Your task to perform on an android device: Open ESPN.com Image 0: 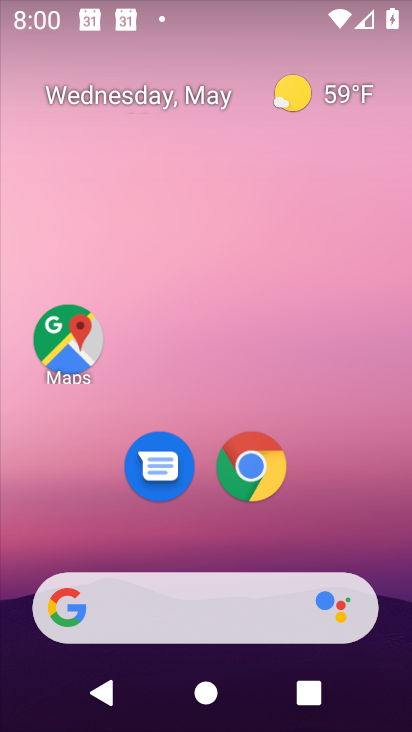
Step 0: drag from (330, 539) to (303, 228)
Your task to perform on an android device: Open ESPN.com Image 1: 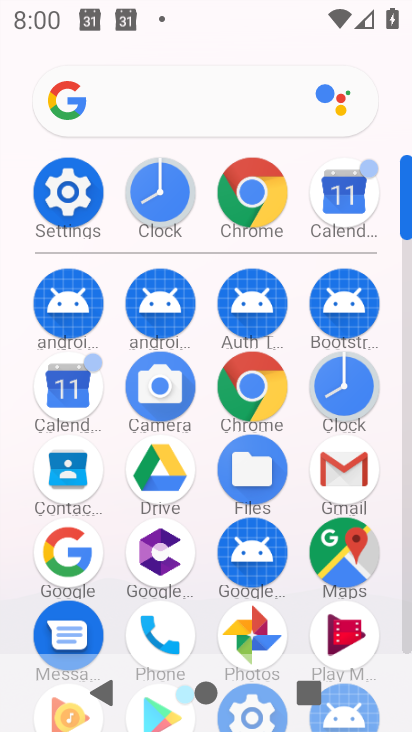
Step 1: click (241, 191)
Your task to perform on an android device: Open ESPN.com Image 2: 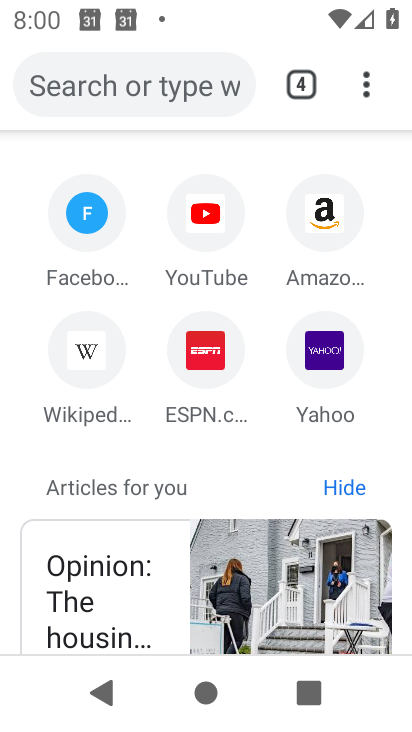
Step 2: click (211, 349)
Your task to perform on an android device: Open ESPN.com Image 3: 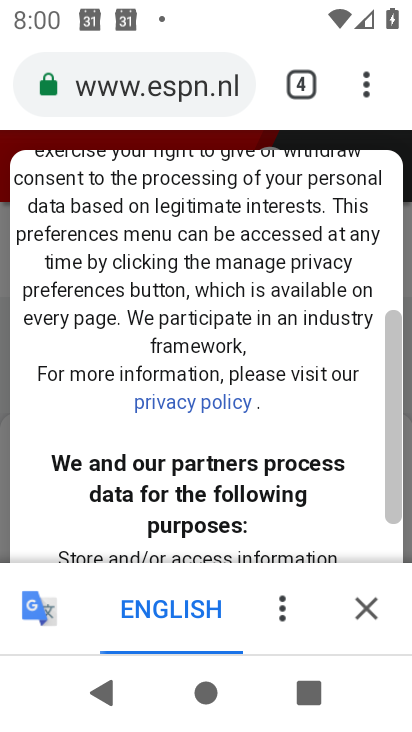
Step 3: task complete